Your task to perform on an android device: Open the web browser Image 0: 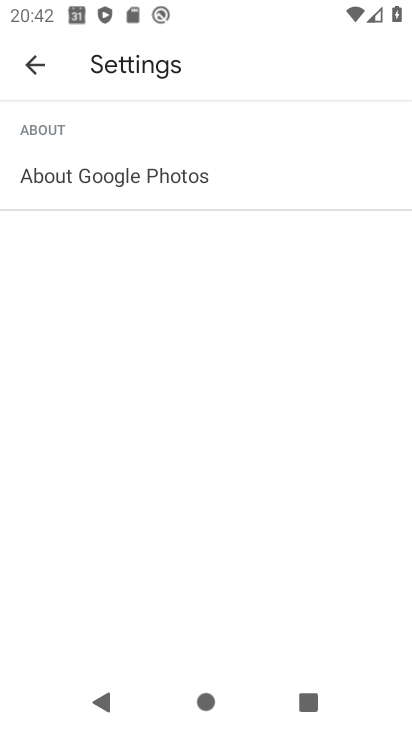
Step 0: press home button
Your task to perform on an android device: Open the web browser Image 1: 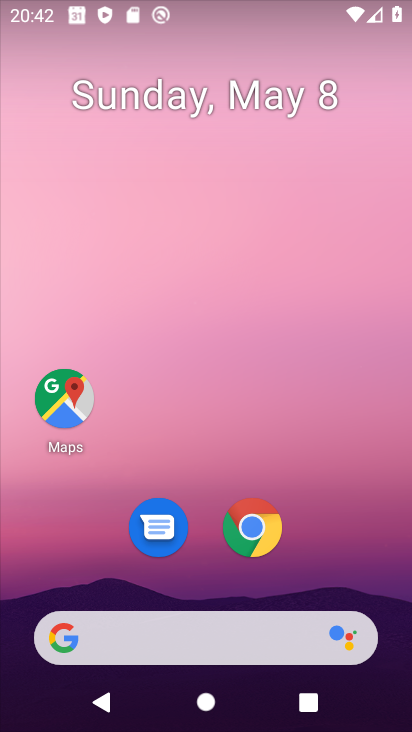
Step 1: drag from (231, 410) to (222, 74)
Your task to perform on an android device: Open the web browser Image 2: 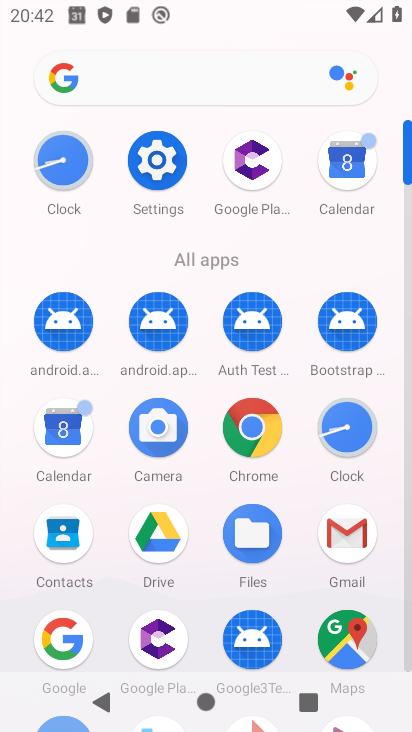
Step 2: click (65, 636)
Your task to perform on an android device: Open the web browser Image 3: 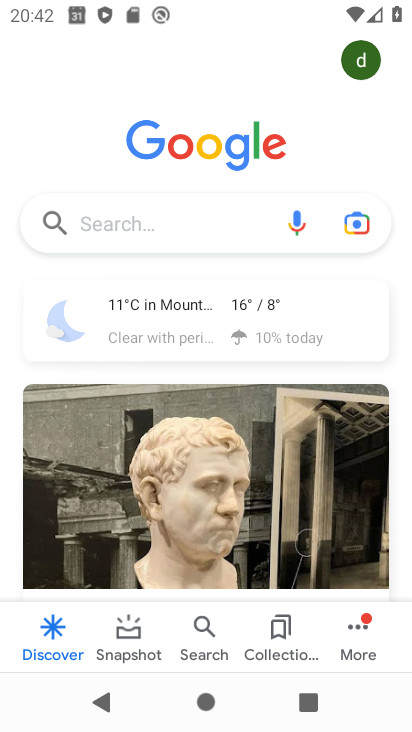
Step 3: task complete